Your task to perform on an android device: set default search engine in the chrome app Image 0: 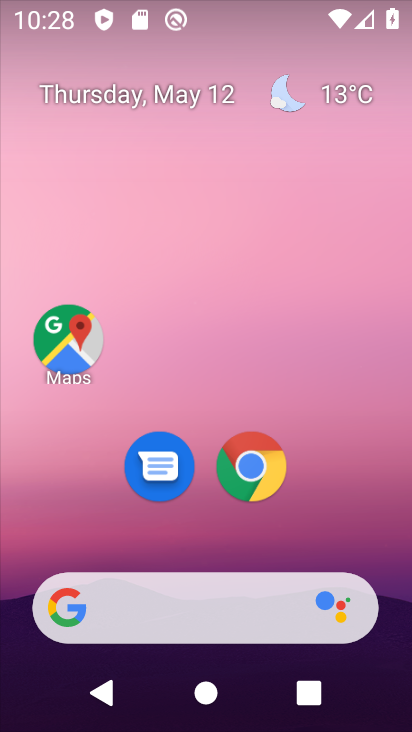
Step 0: click (244, 462)
Your task to perform on an android device: set default search engine in the chrome app Image 1: 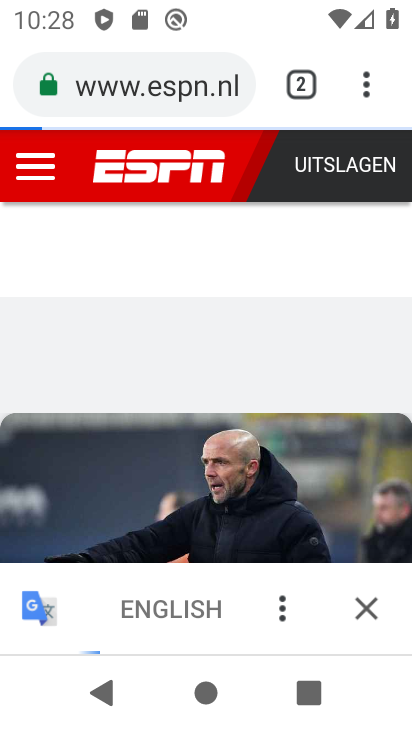
Step 1: drag from (367, 90) to (78, 520)
Your task to perform on an android device: set default search engine in the chrome app Image 2: 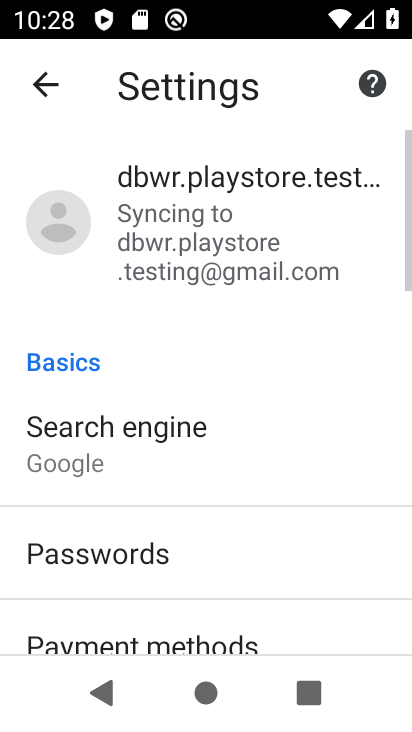
Step 2: click (119, 453)
Your task to perform on an android device: set default search engine in the chrome app Image 3: 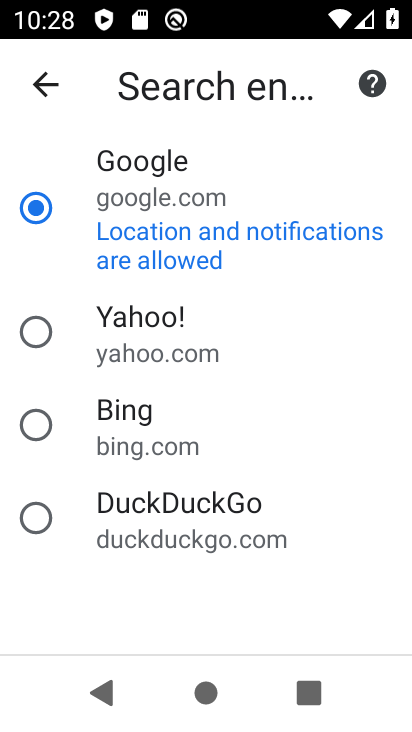
Step 3: click (25, 335)
Your task to perform on an android device: set default search engine in the chrome app Image 4: 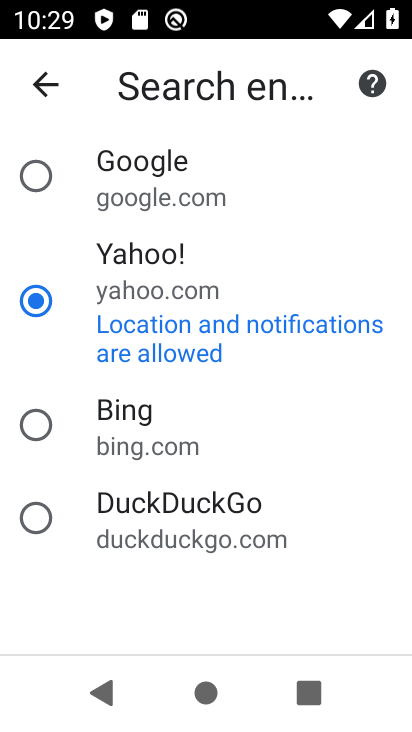
Step 4: task complete